Your task to perform on an android device: toggle data saver in the chrome app Image 0: 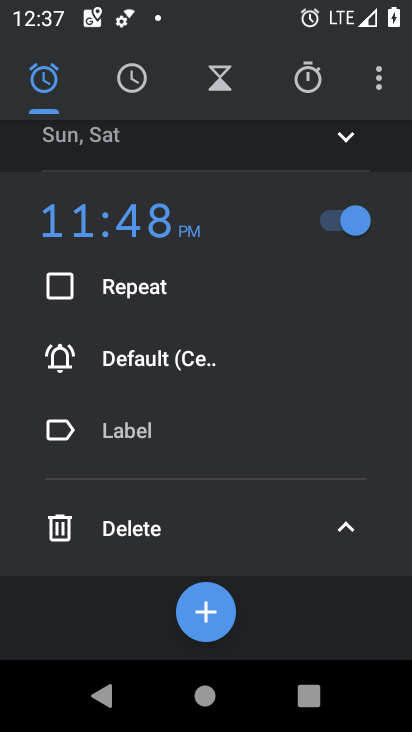
Step 0: press home button
Your task to perform on an android device: toggle data saver in the chrome app Image 1: 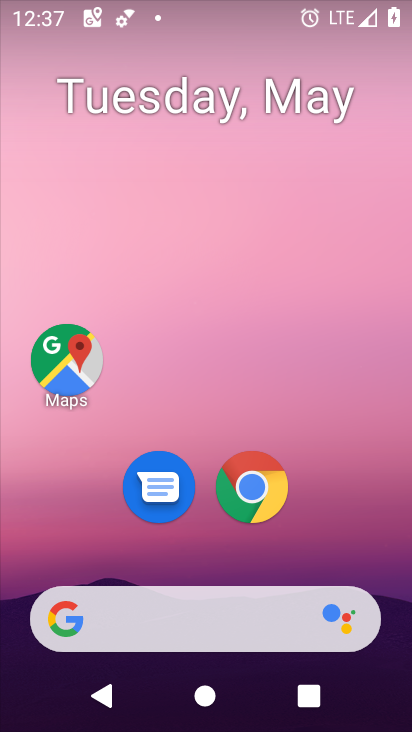
Step 1: click (238, 483)
Your task to perform on an android device: toggle data saver in the chrome app Image 2: 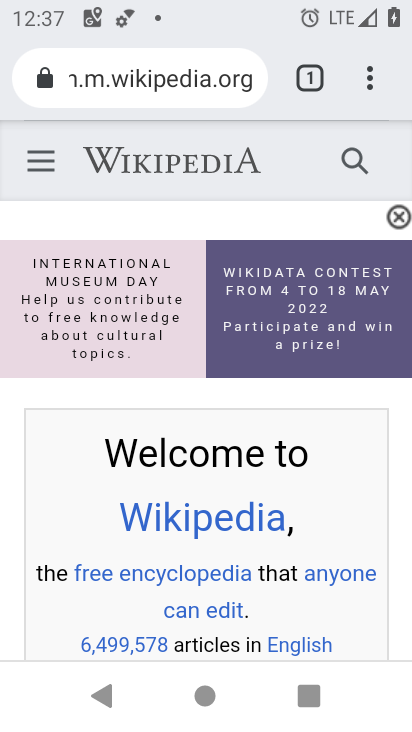
Step 2: click (371, 67)
Your task to perform on an android device: toggle data saver in the chrome app Image 3: 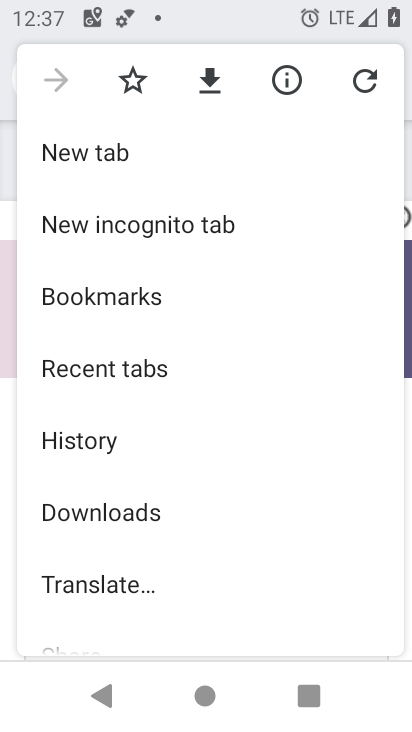
Step 3: drag from (28, 606) to (235, 80)
Your task to perform on an android device: toggle data saver in the chrome app Image 4: 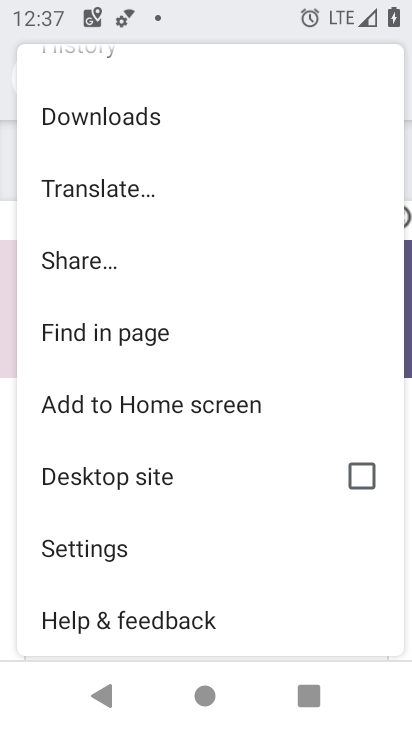
Step 4: click (126, 540)
Your task to perform on an android device: toggle data saver in the chrome app Image 5: 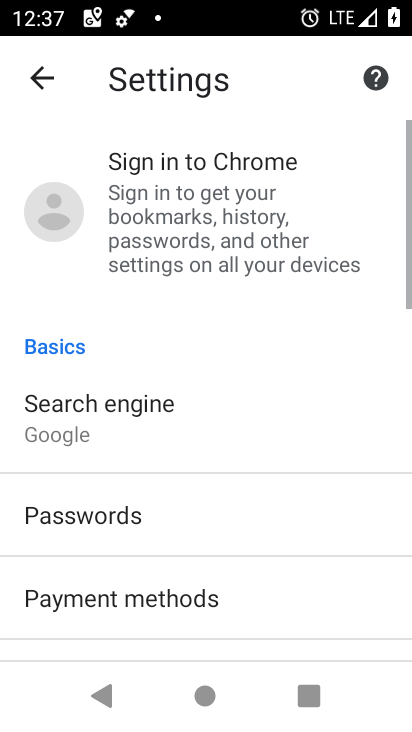
Step 5: drag from (39, 601) to (266, 160)
Your task to perform on an android device: toggle data saver in the chrome app Image 6: 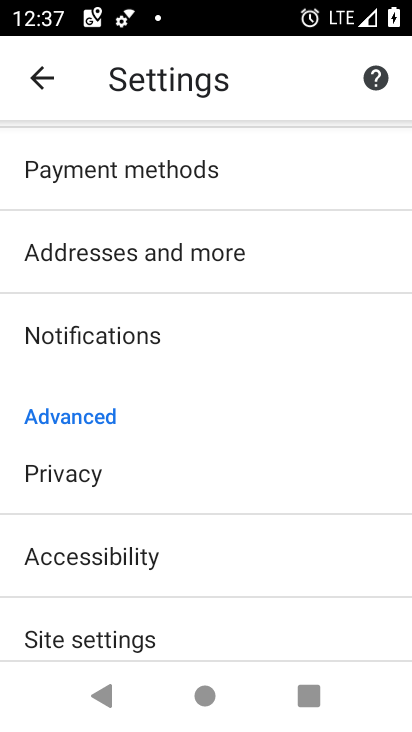
Step 6: drag from (39, 678) to (166, 256)
Your task to perform on an android device: toggle data saver in the chrome app Image 7: 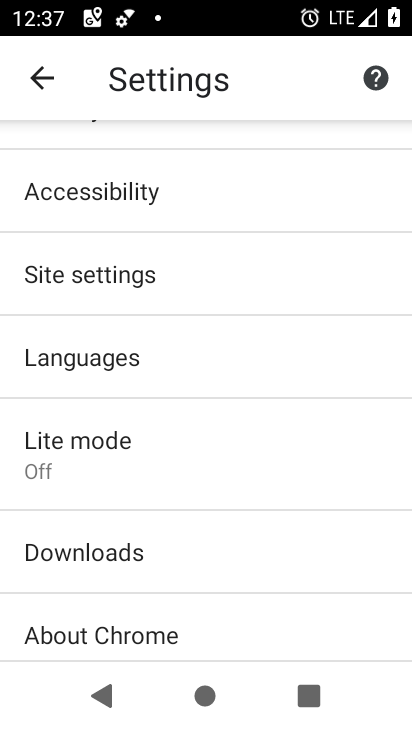
Step 7: click (144, 462)
Your task to perform on an android device: toggle data saver in the chrome app Image 8: 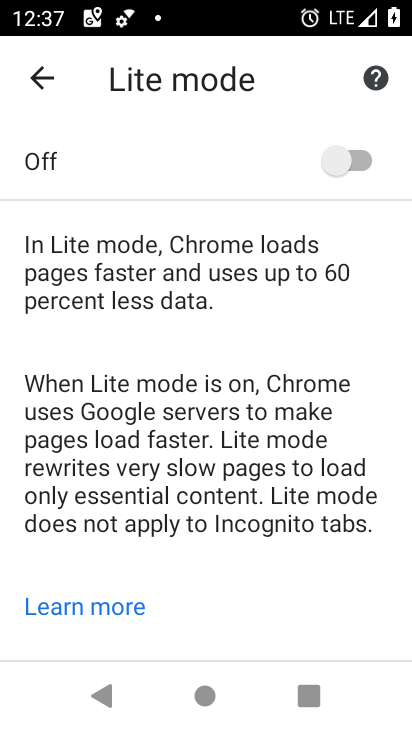
Step 8: click (344, 159)
Your task to perform on an android device: toggle data saver in the chrome app Image 9: 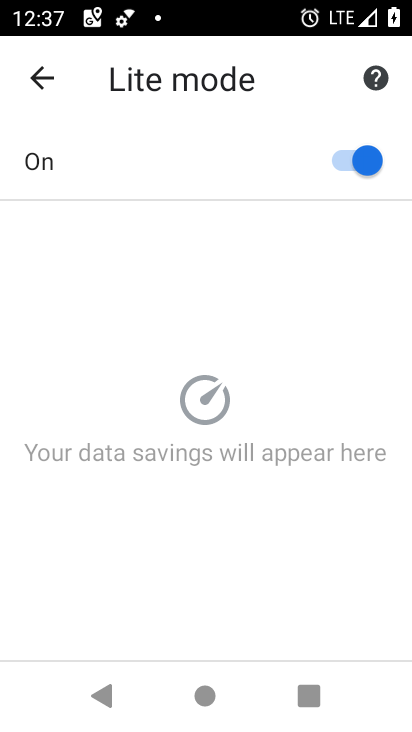
Step 9: task complete